Your task to perform on an android device: What's on my calendar today? Image 0: 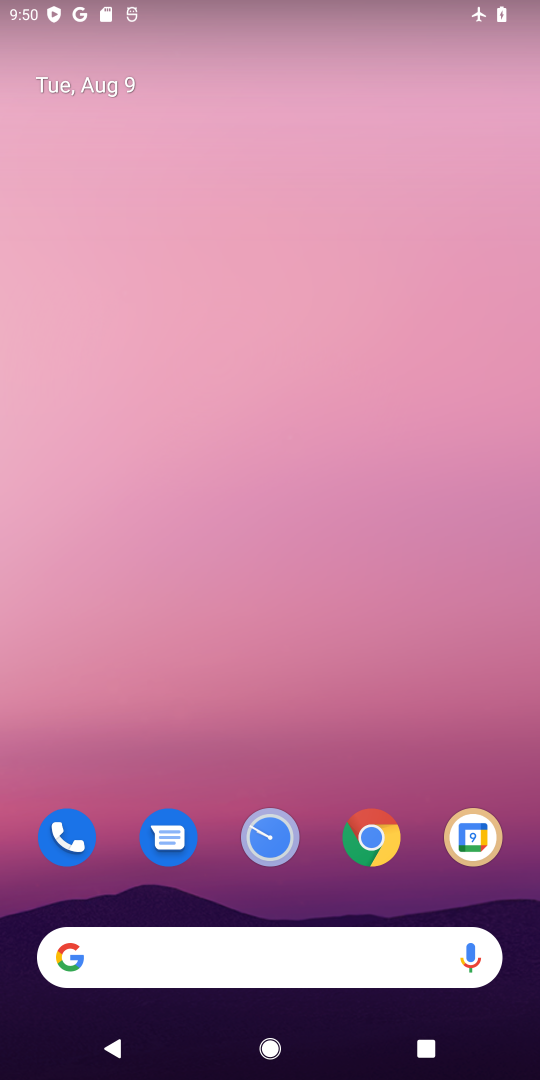
Step 0: drag from (323, 525) to (323, 108)
Your task to perform on an android device: What's on my calendar today? Image 1: 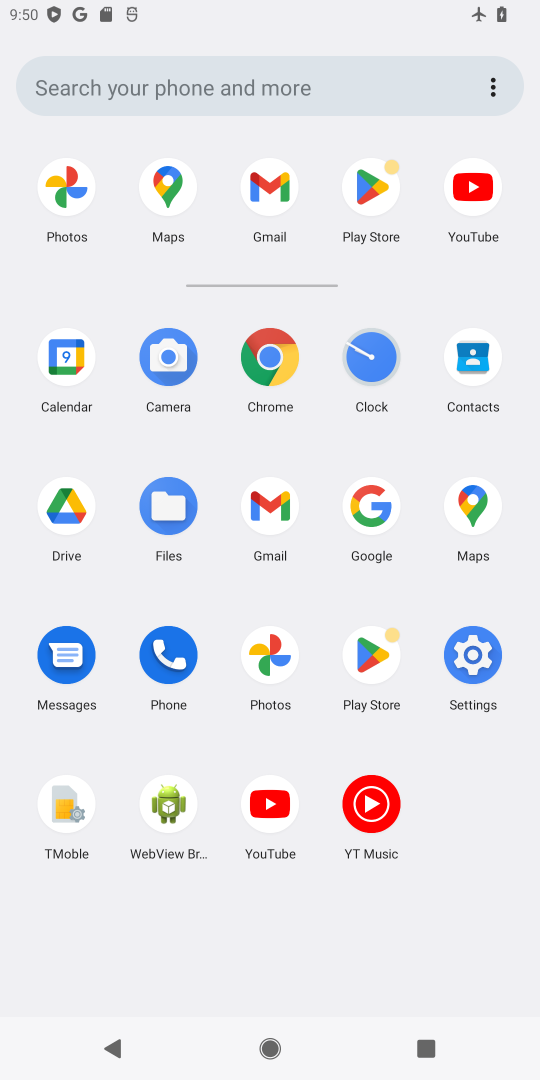
Step 1: click (53, 343)
Your task to perform on an android device: What's on my calendar today? Image 2: 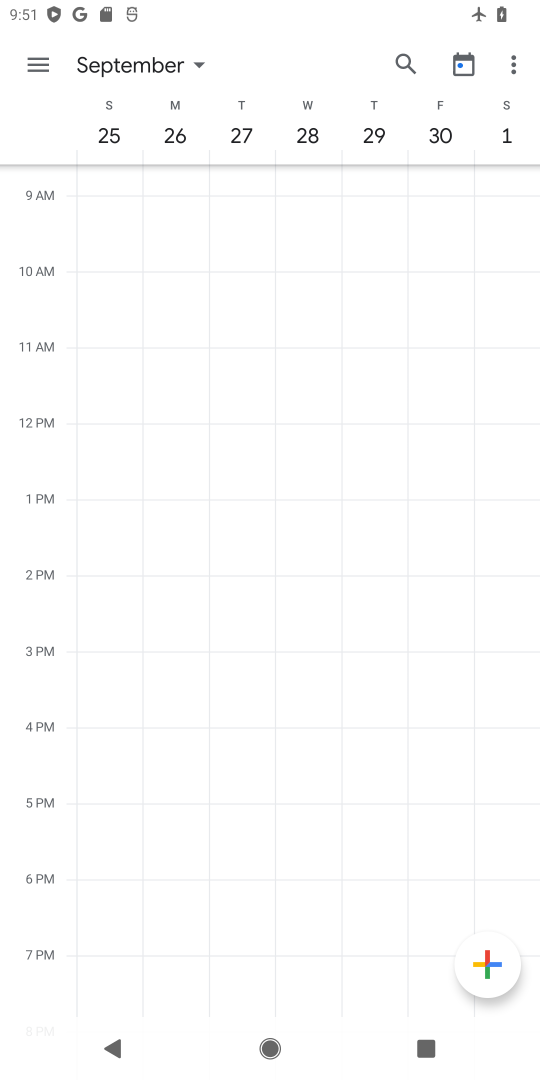
Step 2: click (200, 60)
Your task to perform on an android device: What's on my calendar today? Image 3: 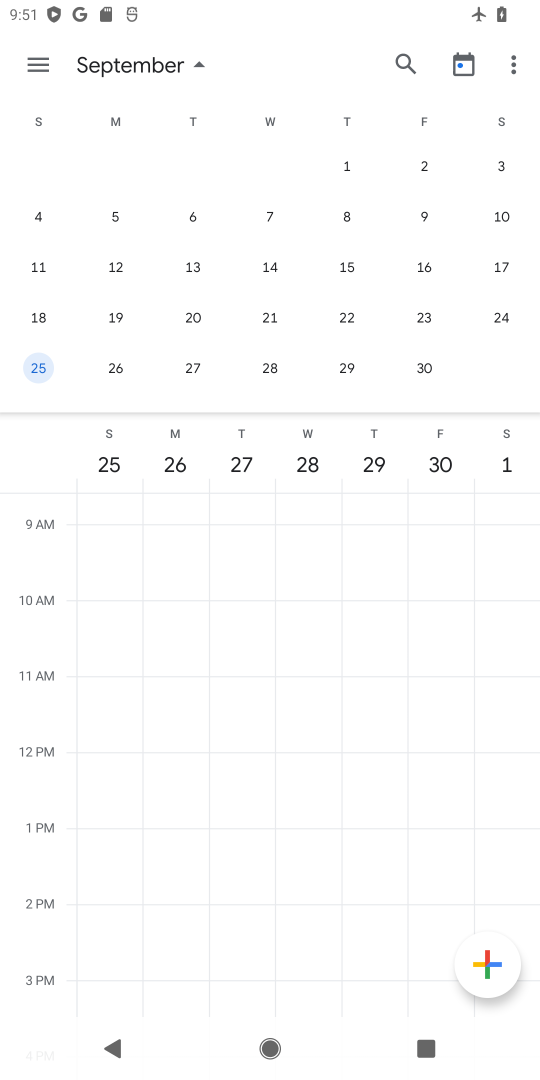
Step 3: drag from (63, 296) to (437, 281)
Your task to perform on an android device: What's on my calendar today? Image 4: 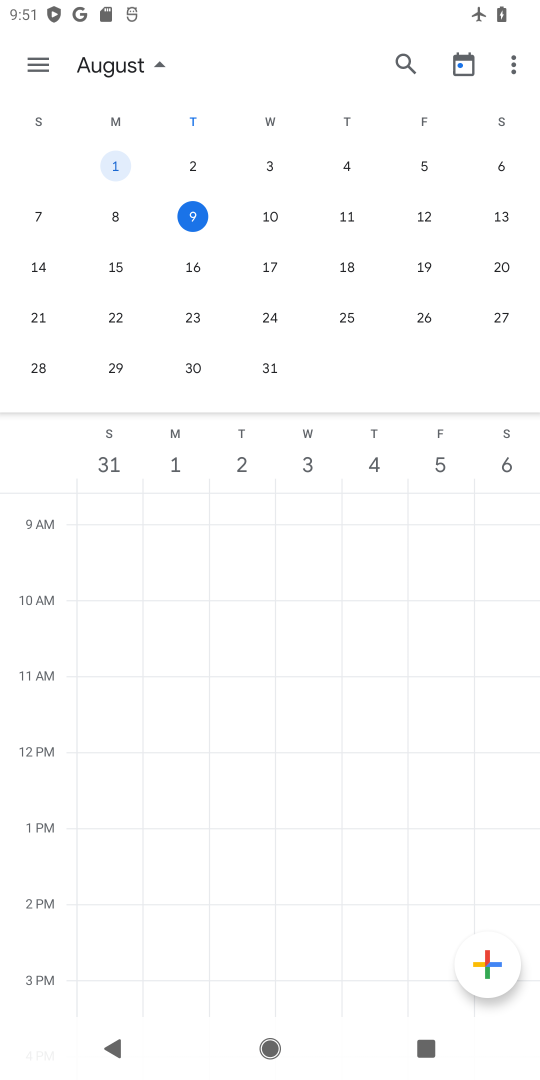
Step 4: click (193, 215)
Your task to perform on an android device: What's on my calendar today? Image 5: 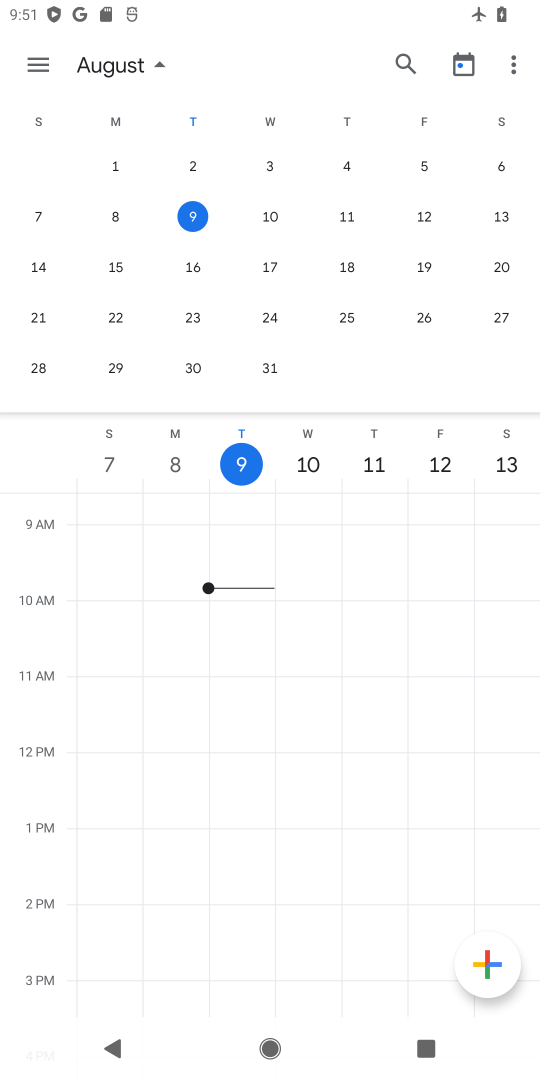
Step 5: click (248, 462)
Your task to perform on an android device: What's on my calendar today? Image 6: 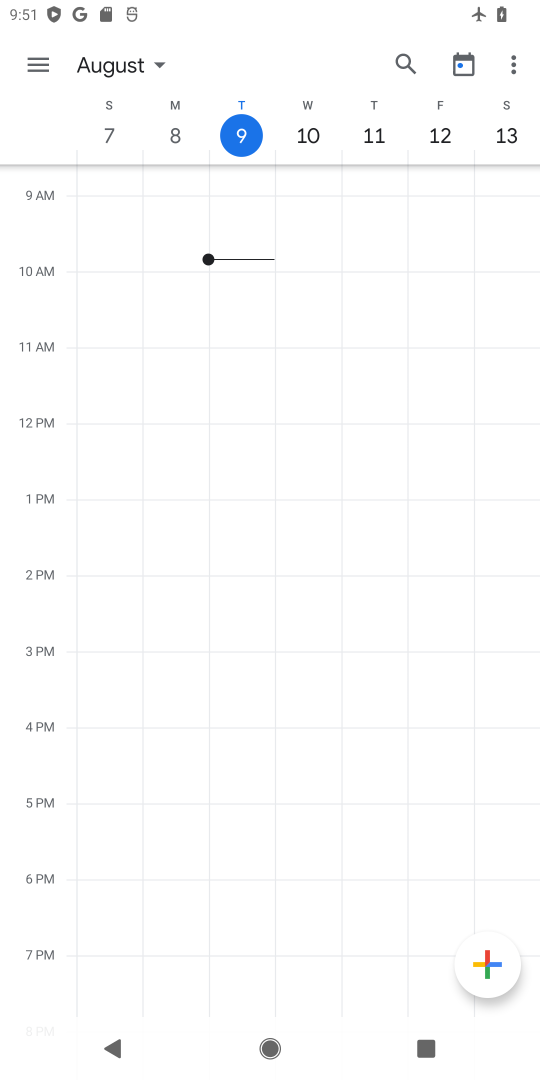
Step 6: click (233, 135)
Your task to perform on an android device: What's on my calendar today? Image 7: 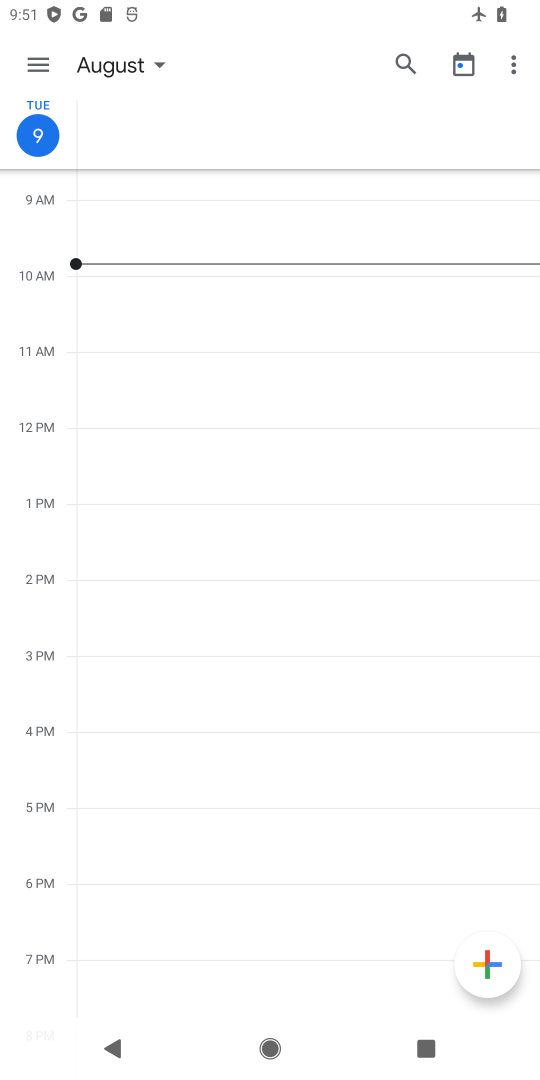
Step 7: task complete